Your task to perform on an android device: Go to Yahoo.com Image 0: 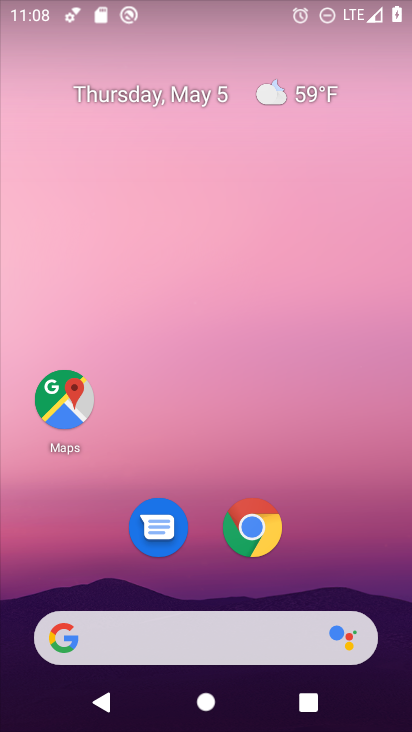
Step 0: click (245, 637)
Your task to perform on an android device: Go to Yahoo.com Image 1: 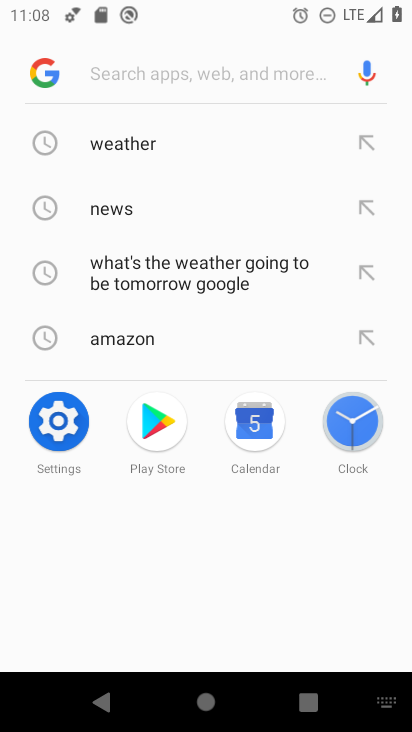
Step 1: type "yahoo.com"
Your task to perform on an android device: Go to Yahoo.com Image 2: 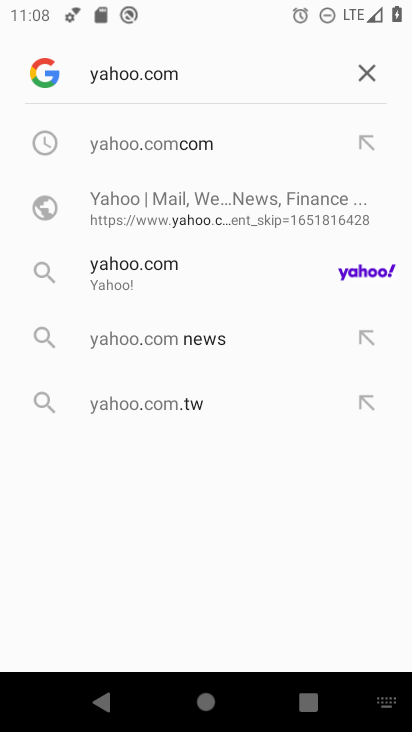
Step 2: click (189, 280)
Your task to perform on an android device: Go to Yahoo.com Image 3: 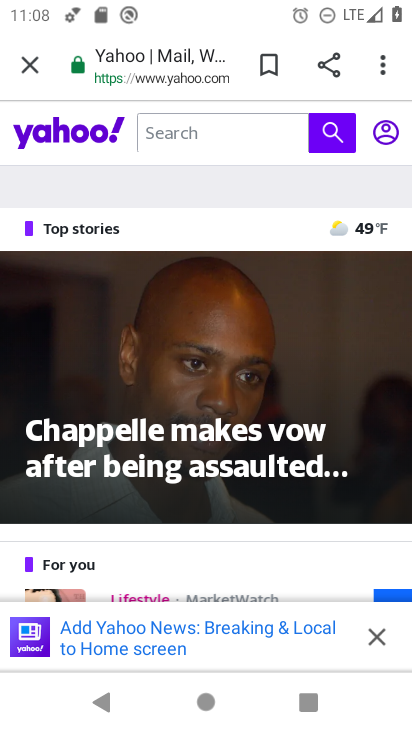
Step 3: task complete